Your task to perform on an android device: Open Wikipedia Image 0: 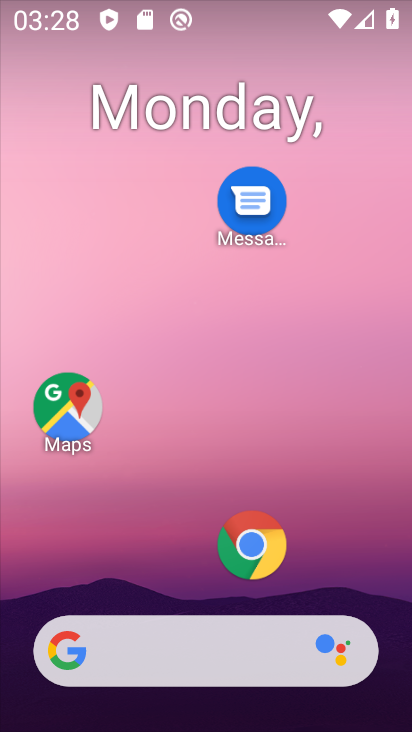
Step 0: click (261, 544)
Your task to perform on an android device: Open Wikipedia Image 1: 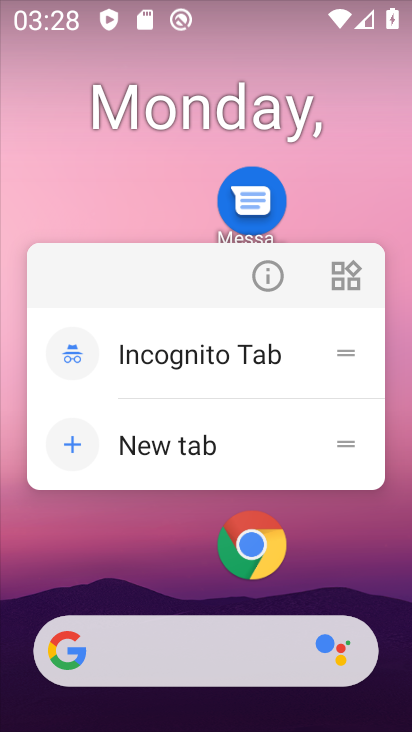
Step 1: click (247, 543)
Your task to perform on an android device: Open Wikipedia Image 2: 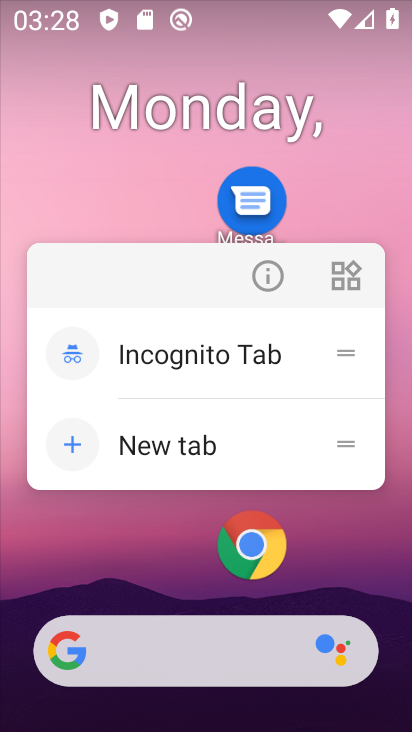
Step 2: click (246, 534)
Your task to perform on an android device: Open Wikipedia Image 3: 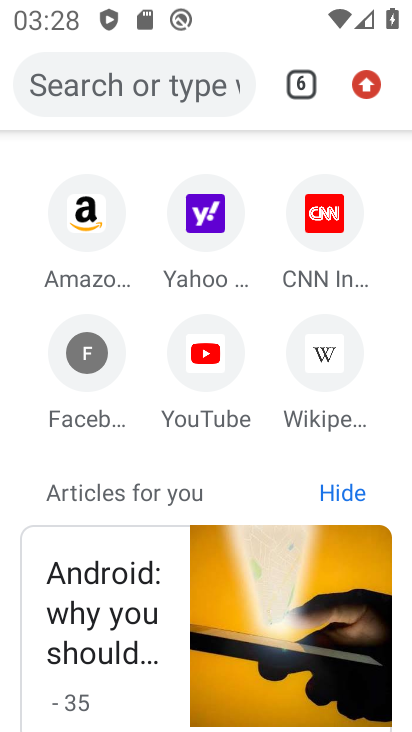
Step 3: click (320, 343)
Your task to perform on an android device: Open Wikipedia Image 4: 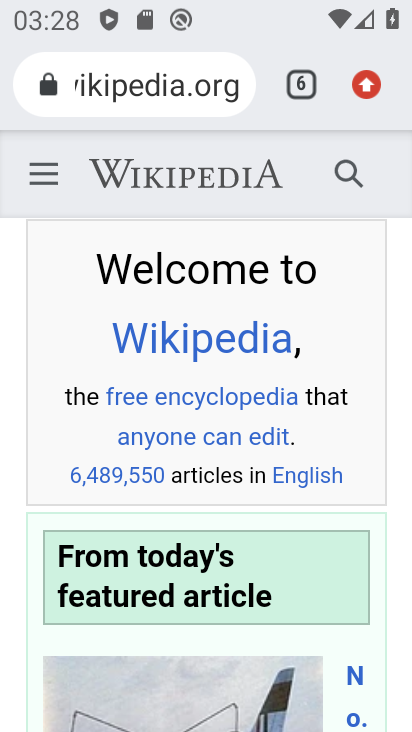
Step 4: task complete